Your task to perform on an android device: What's on my calendar today? Image 0: 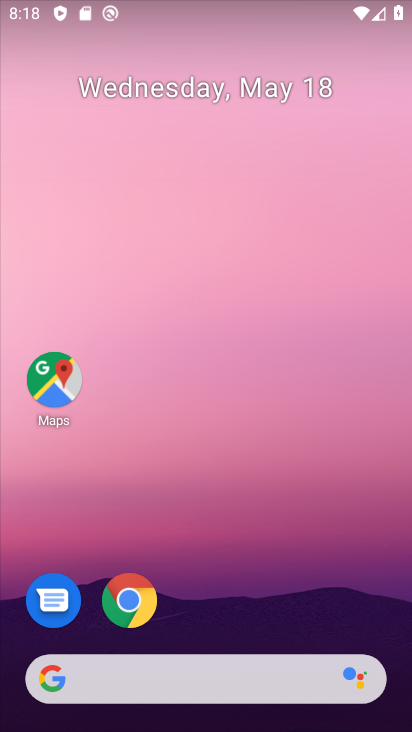
Step 0: drag from (312, 712) to (269, 174)
Your task to perform on an android device: What's on my calendar today? Image 1: 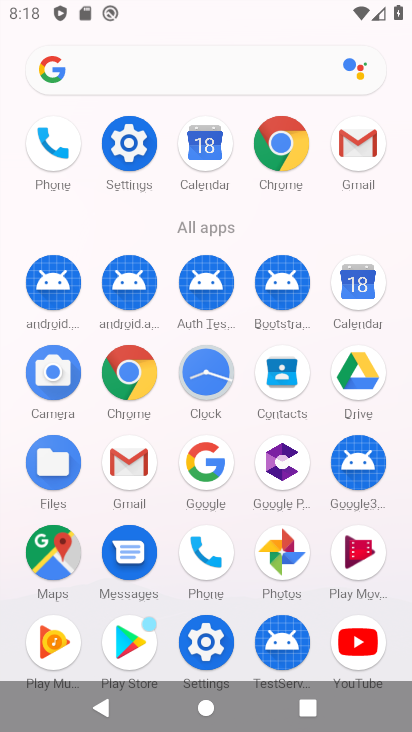
Step 1: click (374, 288)
Your task to perform on an android device: What's on my calendar today? Image 2: 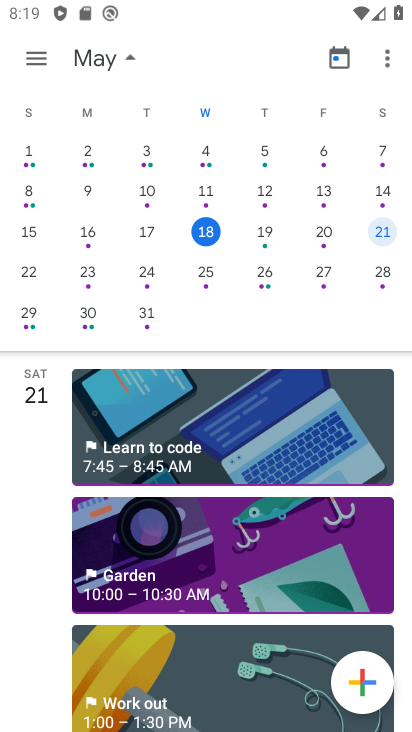
Step 2: task complete